Your task to perform on an android device: turn off picture-in-picture Image 0: 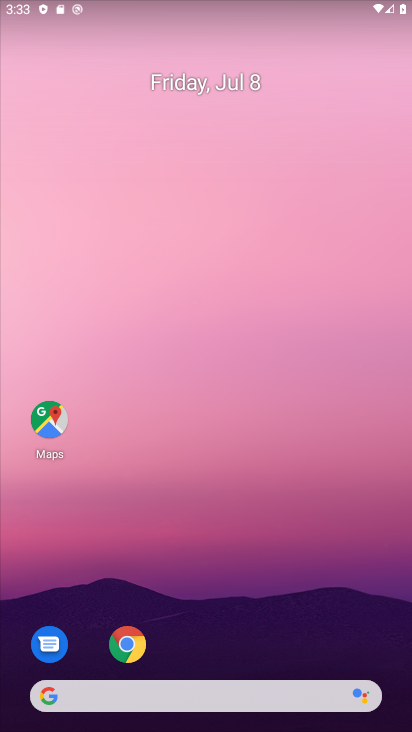
Step 0: click (124, 644)
Your task to perform on an android device: turn off picture-in-picture Image 1: 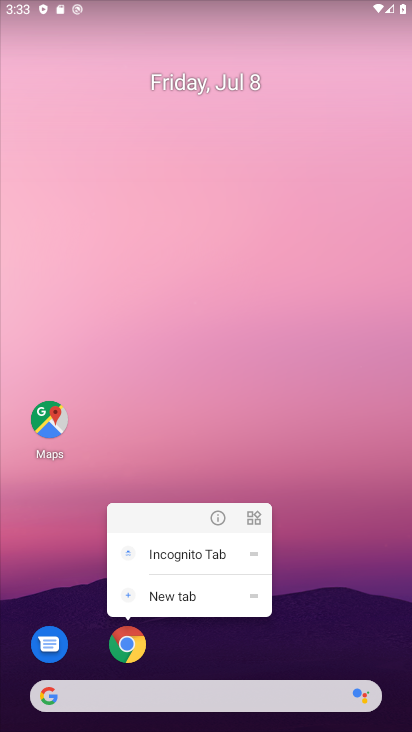
Step 1: click (213, 518)
Your task to perform on an android device: turn off picture-in-picture Image 2: 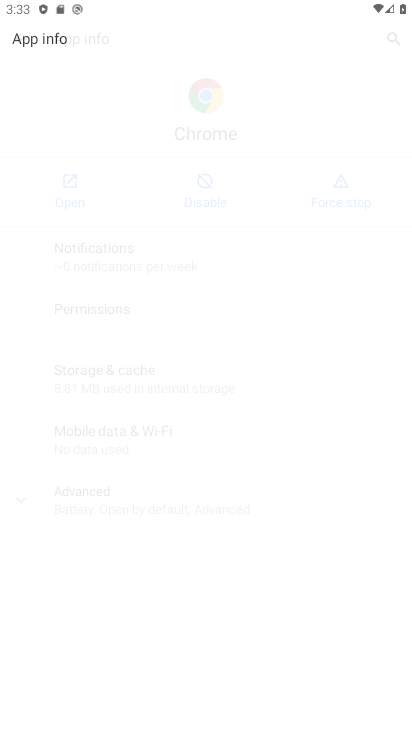
Step 2: click (283, 600)
Your task to perform on an android device: turn off picture-in-picture Image 3: 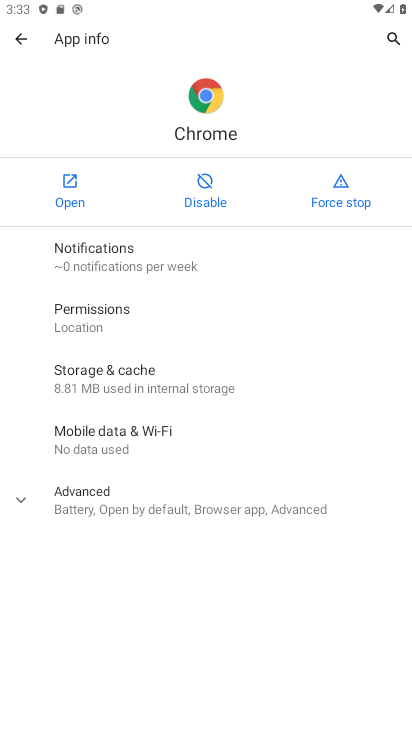
Step 3: click (153, 487)
Your task to perform on an android device: turn off picture-in-picture Image 4: 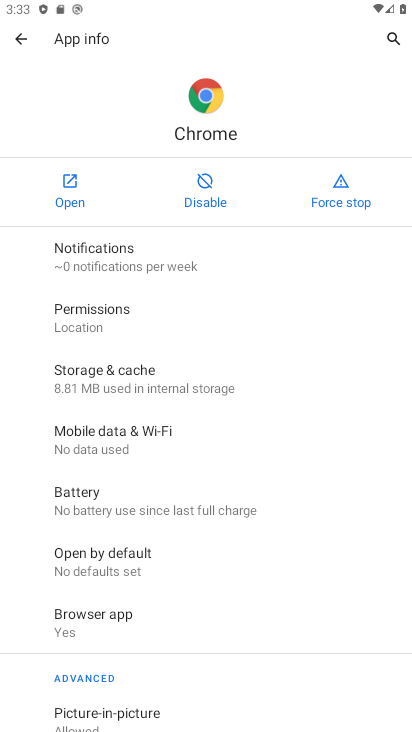
Step 4: click (179, 716)
Your task to perform on an android device: turn off picture-in-picture Image 5: 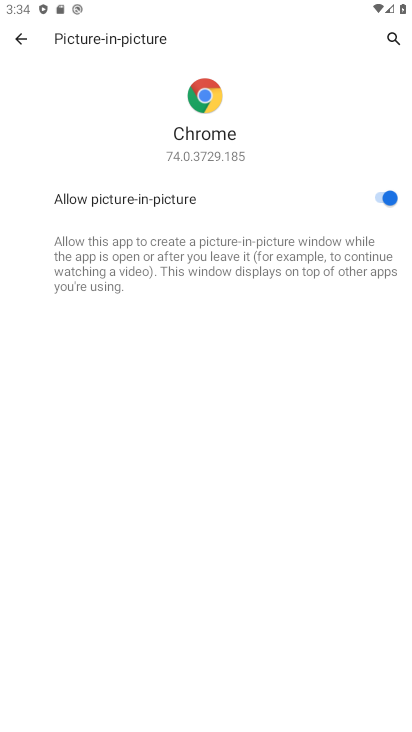
Step 5: click (385, 188)
Your task to perform on an android device: turn off picture-in-picture Image 6: 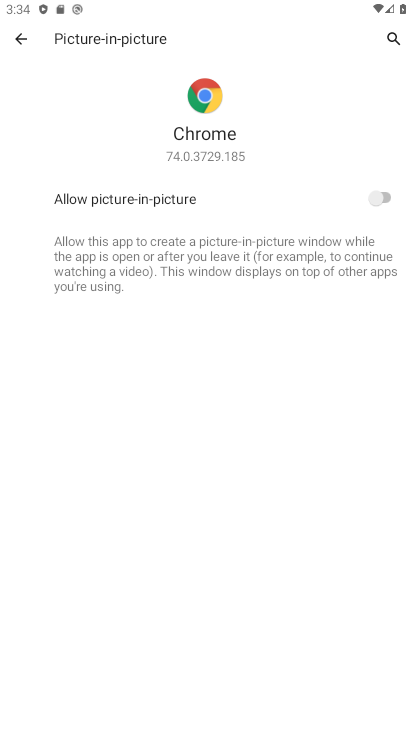
Step 6: task complete